Your task to perform on an android device: visit the assistant section in the google photos Image 0: 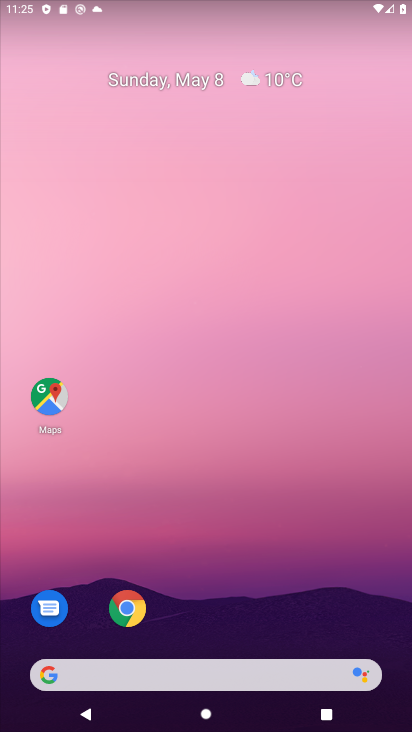
Step 0: drag from (229, 618) to (254, 215)
Your task to perform on an android device: visit the assistant section in the google photos Image 1: 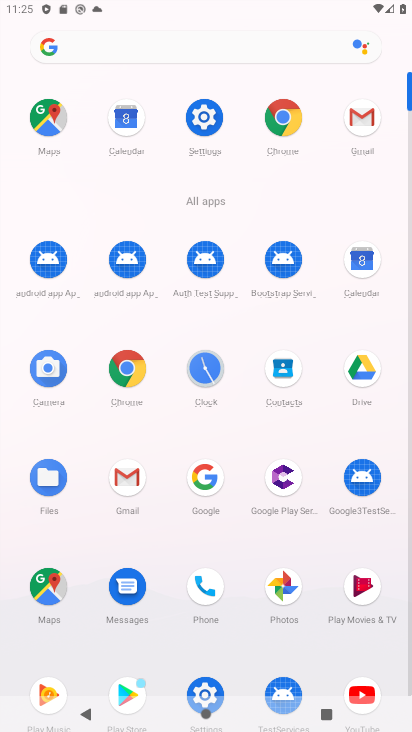
Step 1: click (267, 588)
Your task to perform on an android device: visit the assistant section in the google photos Image 2: 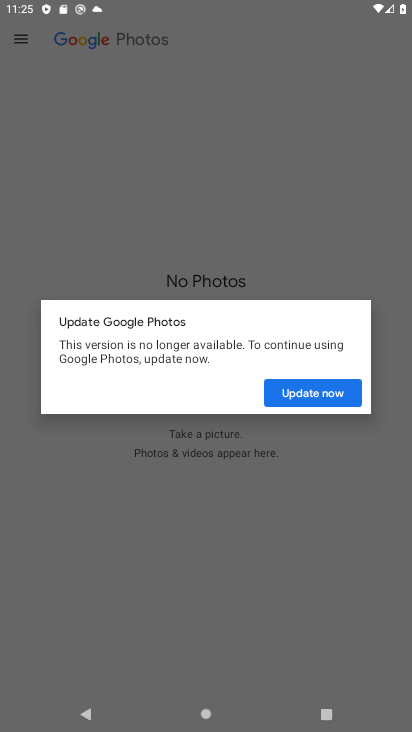
Step 2: click (315, 397)
Your task to perform on an android device: visit the assistant section in the google photos Image 3: 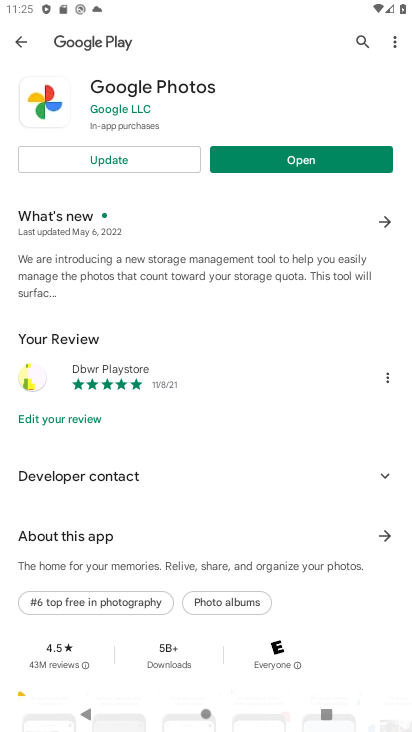
Step 3: click (163, 168)
Your task to perform on an android device: visit the assistant section in the google photos Image 4: 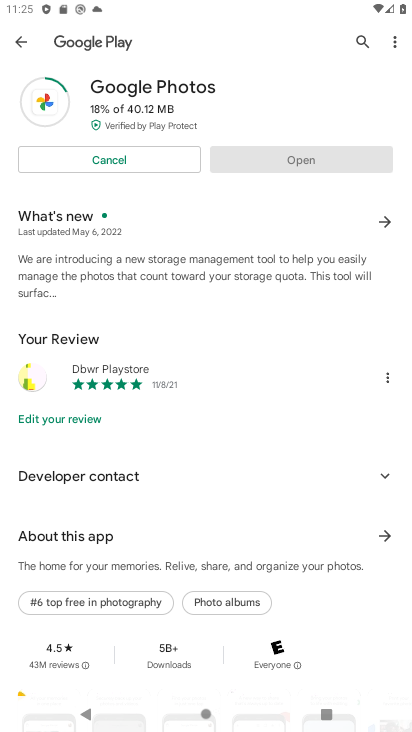
Step 4: press home button
Your task to perform on an android device: visit the assistant section in the google photos Image 5: 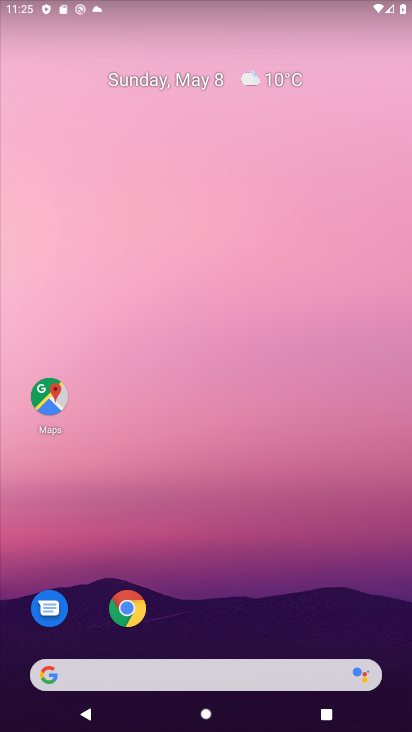
Step 5: drag from (254, 611) to (256, 84)
Your task to perform on an android device: visit the assistant section in the google photos Image 6: 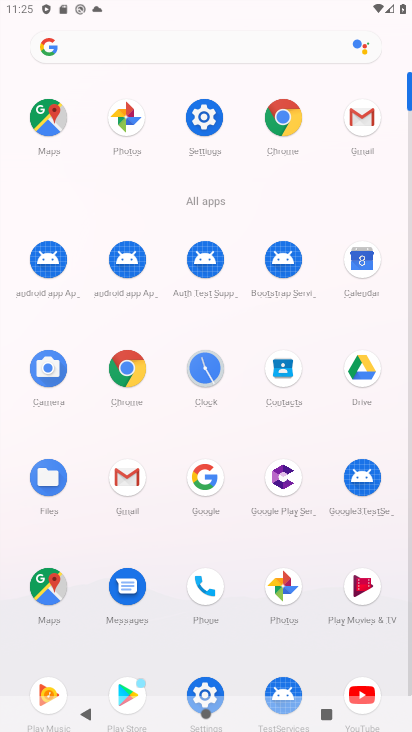
Step 6: click (141, 132)
Your task to perform on an android device: visit the assistant section in the google photos Image 7: 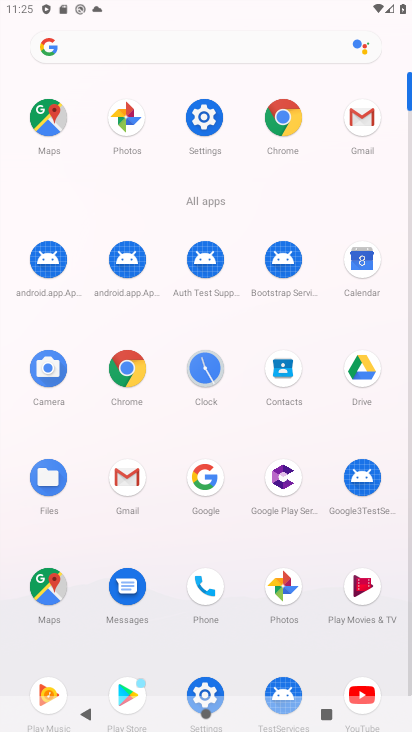
Step 7: click (131, 144)
Your task to perform on an android device: visit the assistant section in the google photos Image 8: 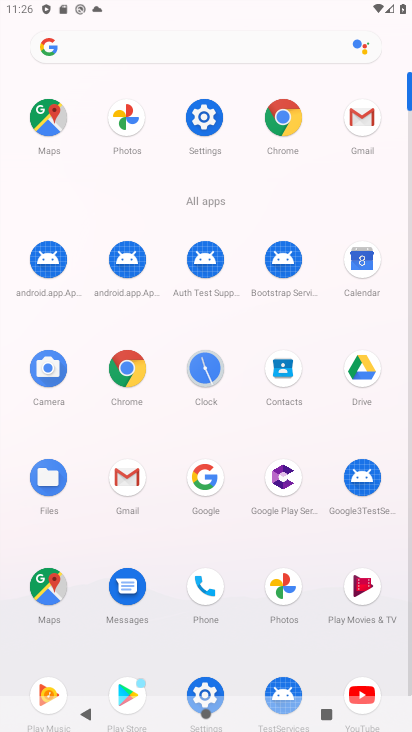
Step 8: click (274, 599)
Your task to perform on an android device: visit the assistant section in the google photos Image 9: 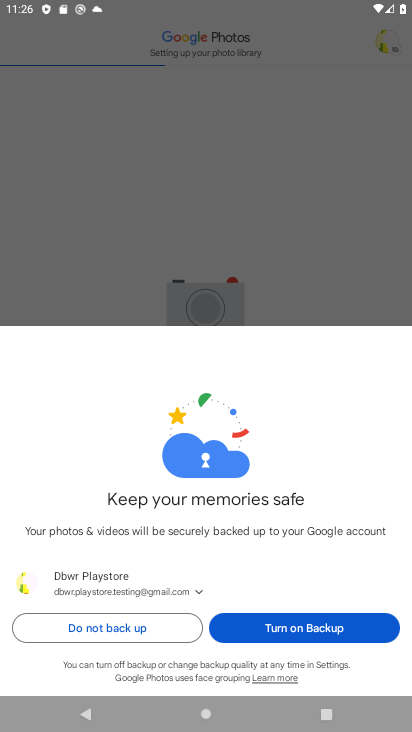
Step 9: click (146, 628)
Your task to perform on an android device: visit the assistant section in the google photos Image 10: 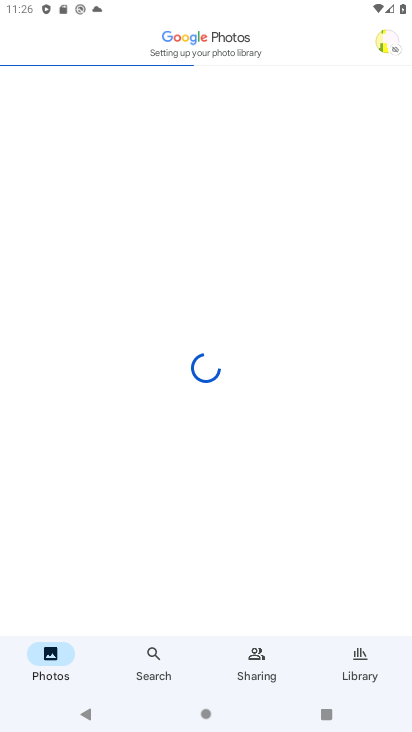
Step 10: click (381, 45)
Your task to perform on an android device: visit the assistant section in the google photos Image 11: 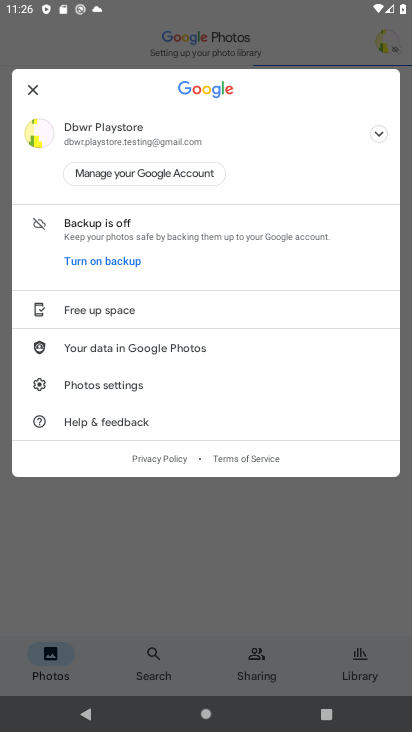
Step 11: task complete